Your task to perform on an android device: Go to notification settings Image 0: 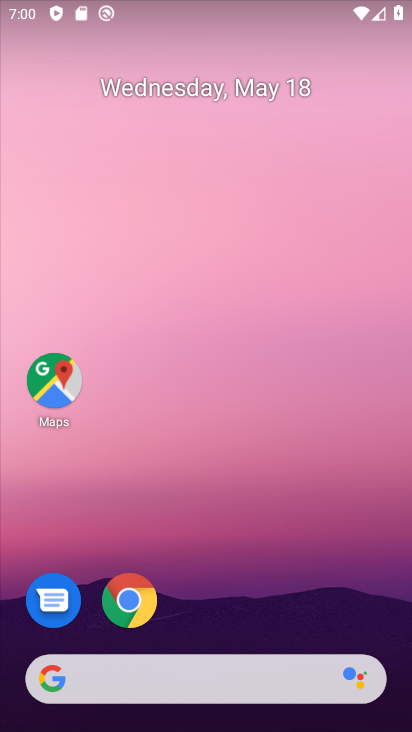
Step 0: drag from (283, 720) to (235, 237)
Your task to perform on an android device: Go to notification settings Image 1: 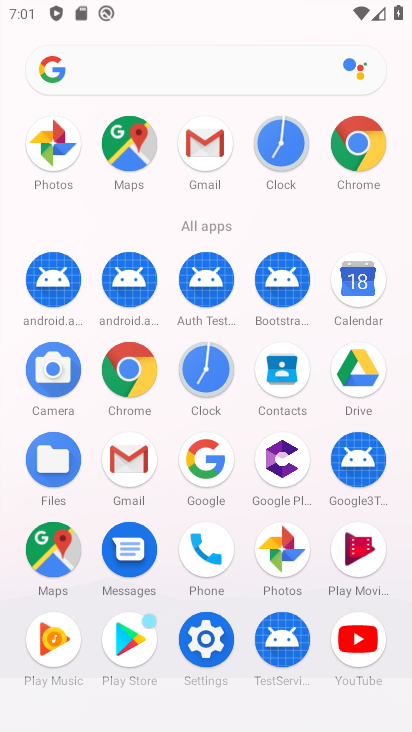
Step 1: click (223, 639)
Your task to perform on an android device: Go to notification settings Image 2: 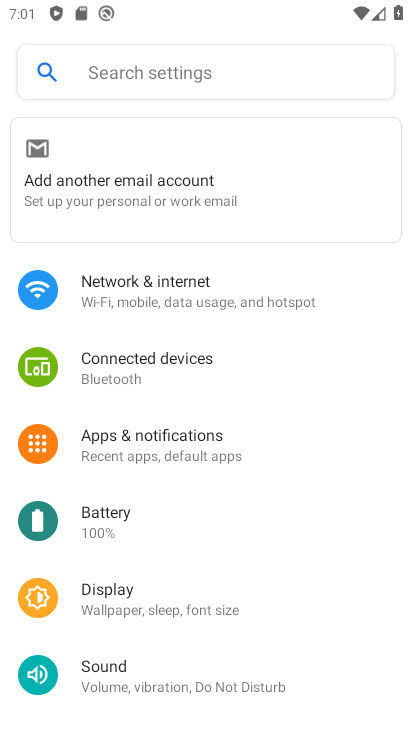
Step 2: click (176, 80)
Your task to perform on an android device: Go to notification settings Image 3: 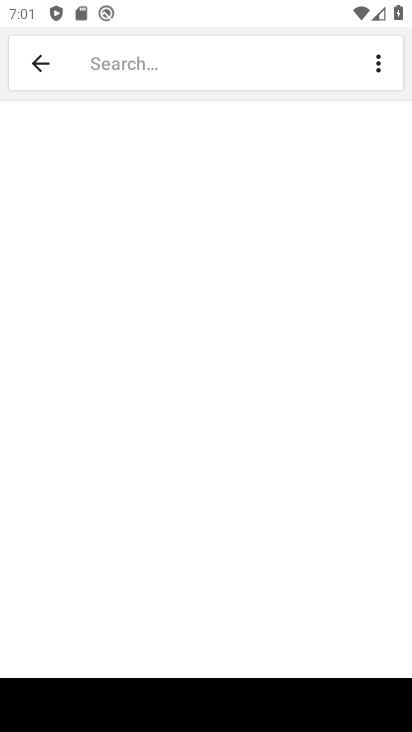
Step 3: drag from (379, 708) to (332, 526)
Your task to perform on an android device: Go to notification settings Image 4: 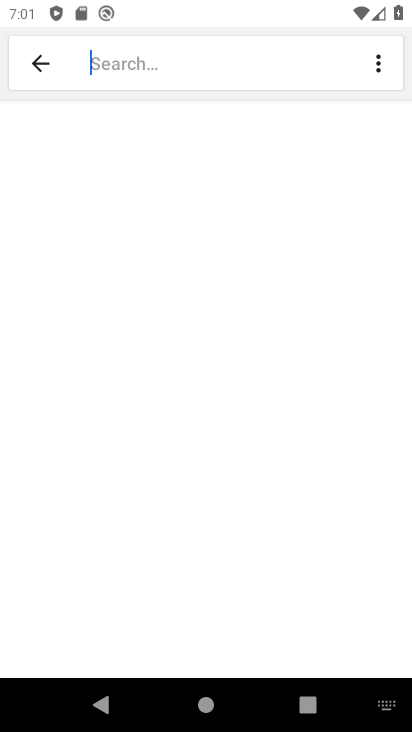
Step 4: click (386, 706)
Your task to perform on an android device: Go to notification settings Image 5: 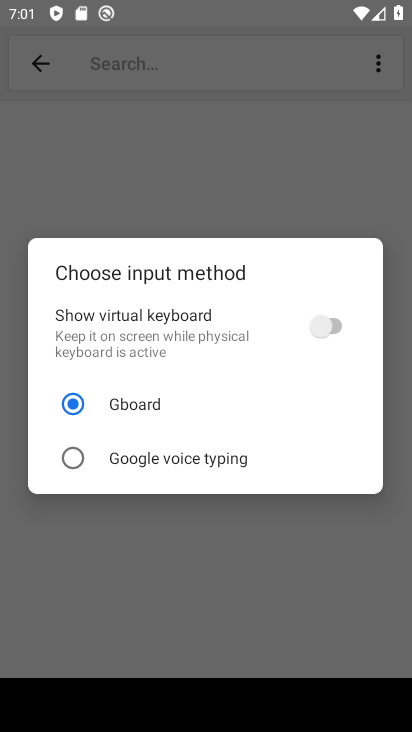
Step 5: click (325, 323)
Your task to perform on an android device: Go to notification settings Image 6: 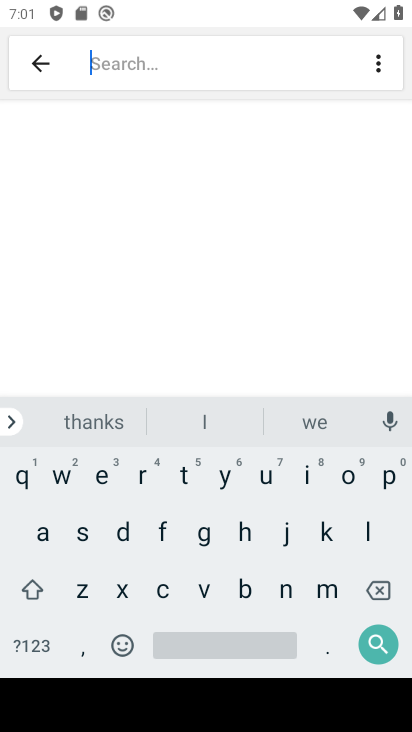
Step 6: click (292, 590)
Your task to perform on an android device: Go to notification settings Image 7: 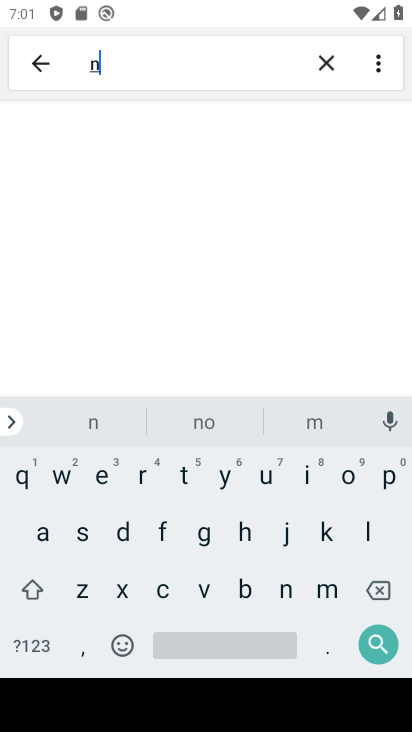
Step 7: click (342, 475)
Your task to perform on an android device: Go to notification settings Image 8: 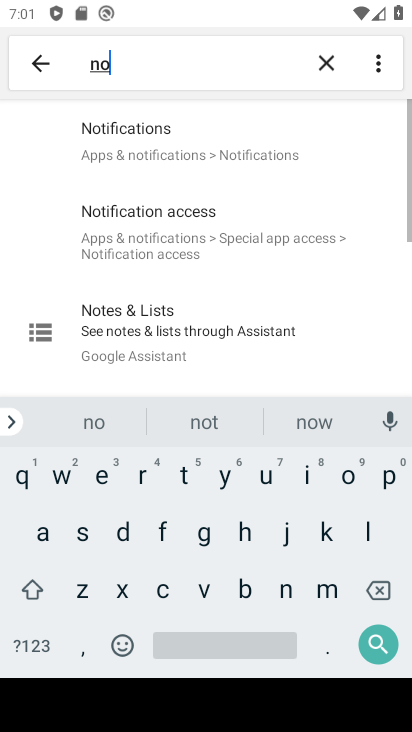
Step 8: click (157, 153)
Your task to perform on an android device: Go to notification settings Image 9: 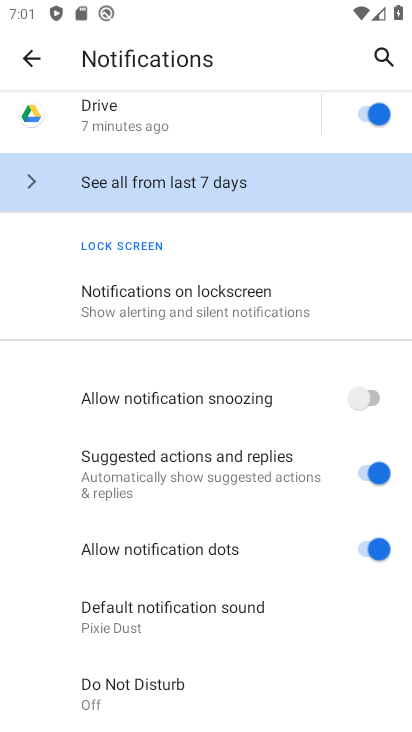
Step 9: click (215, 293)
Your task to perform on an android device: Go to notification settings Image 10: 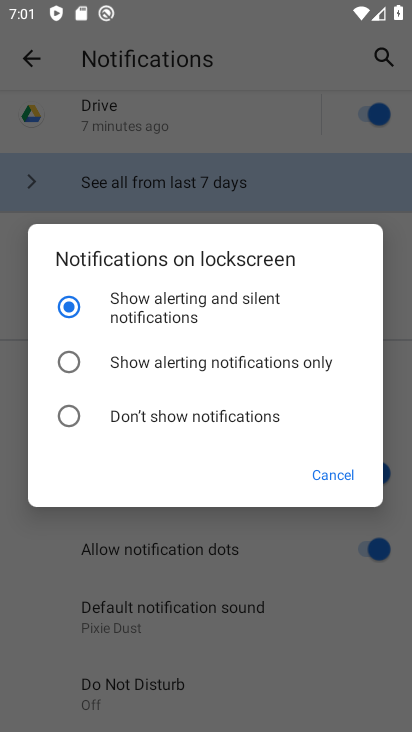
Step 10: task complete